Your task to perform on an android device: toggle improve location accuracy Image 0: 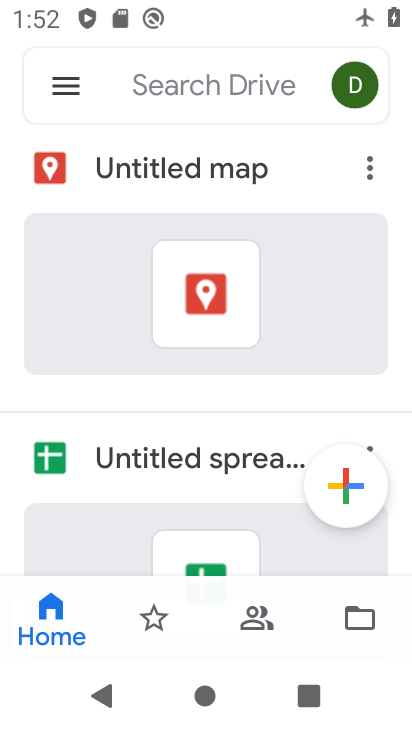
Step 0: press home button
Your task to perform on an android device: toggle improve location accuracy Image 1: 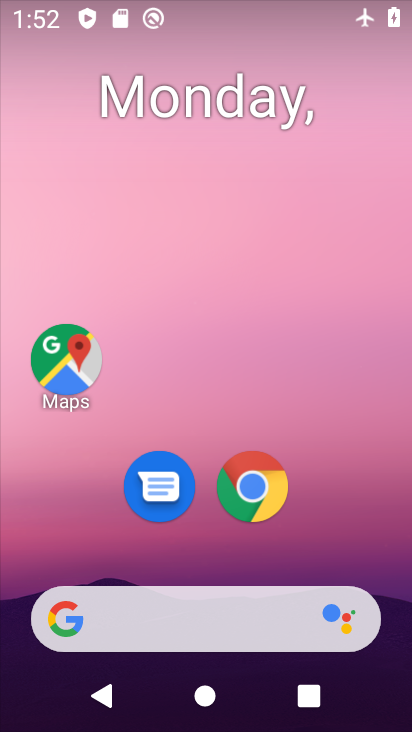
Step 1: drag from (263, 592) to (279, 245)
Your task to perform on an android device: toggle improve location accuracy Image 2: 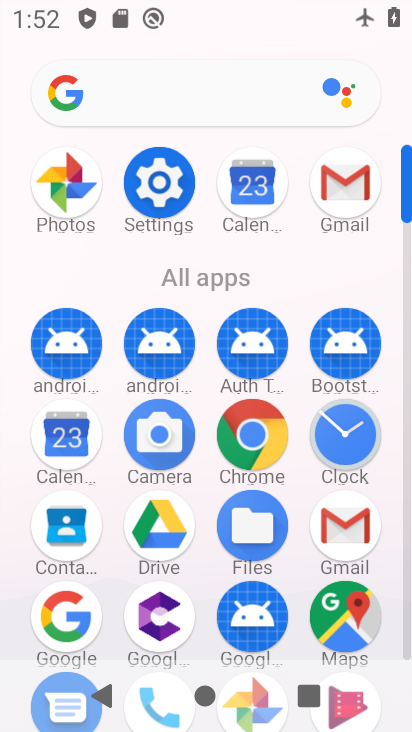
Step 2: click (181, 197)
Your task to perform on an android device: toggle improve location accuracy Image 3: 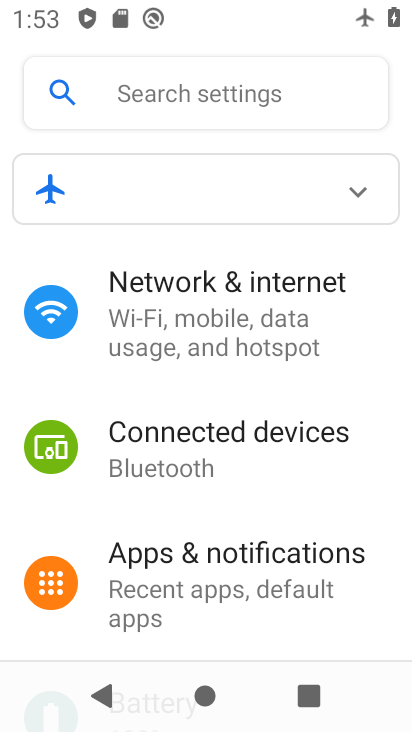
Step 3: click (229, 319)
Your task to perform on an android device: toggle improve location accuracy Image 4: 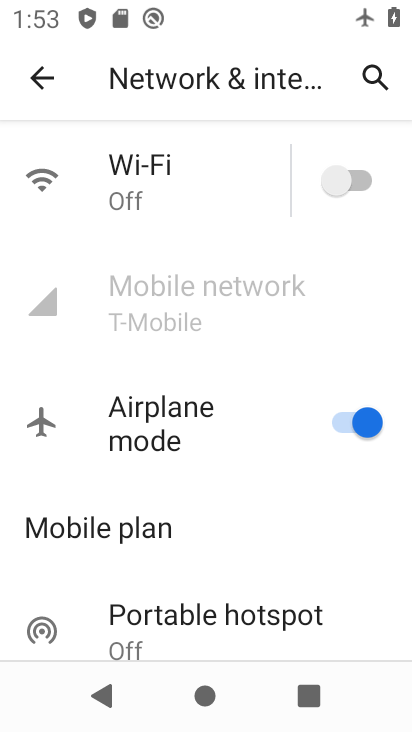
Step 4: drag from (209, 602) to (252, 318)
Your task to perform on an android device: toggle improve location accuracy Image 5: 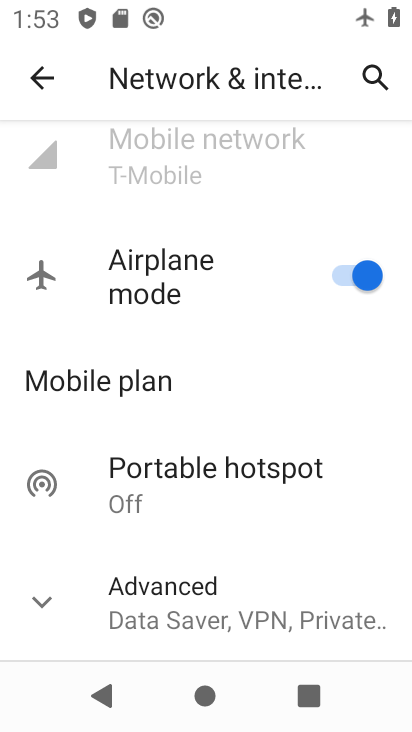
Step 5: drag from (224, 579) to (264, 282)
Your task to perform on an android device: toggle improve location accuracy Image 6: 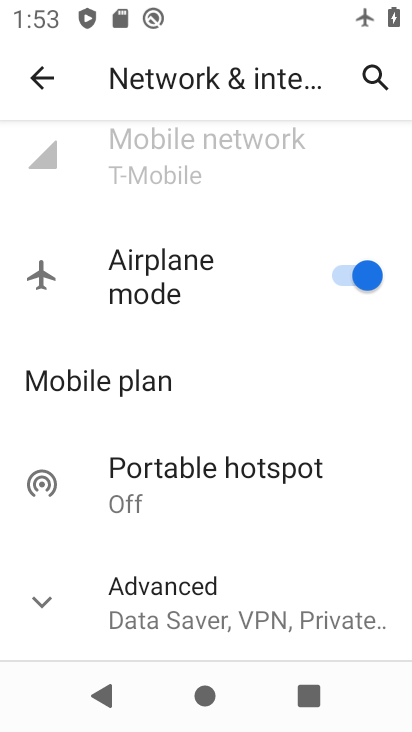
Step 6: drag from (292, 195) to (264, 497)
Your task to perform on an android device: toggle improve location accuracy Image 7: 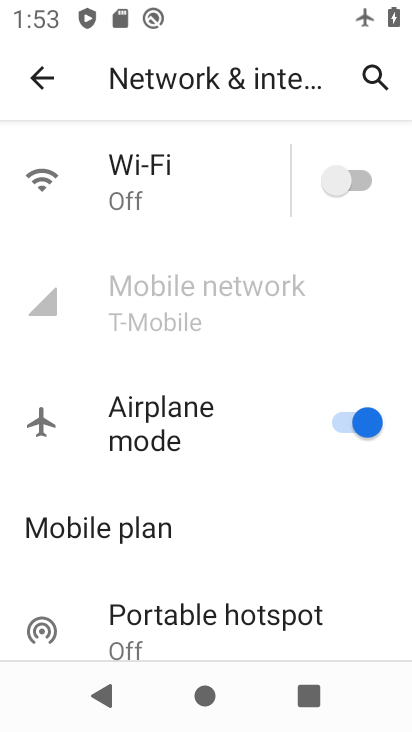
Step 7: click (342, 417)
Your task to perform on an android device: toggle improve location accuracy Image 8: 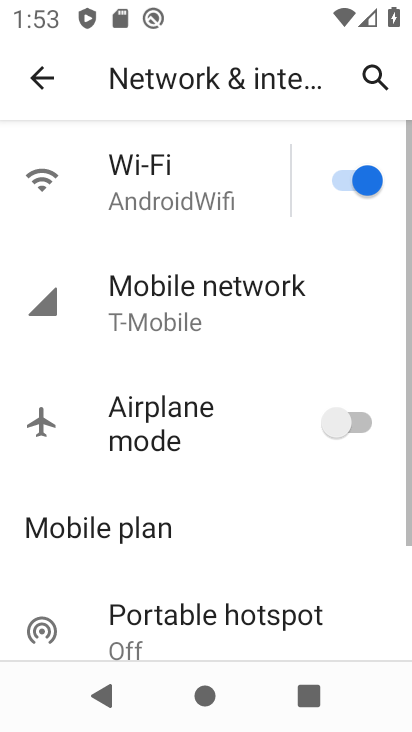
Step 8: press back button
Your task to perform on an android device: toggle improve location accuracy Image 9: 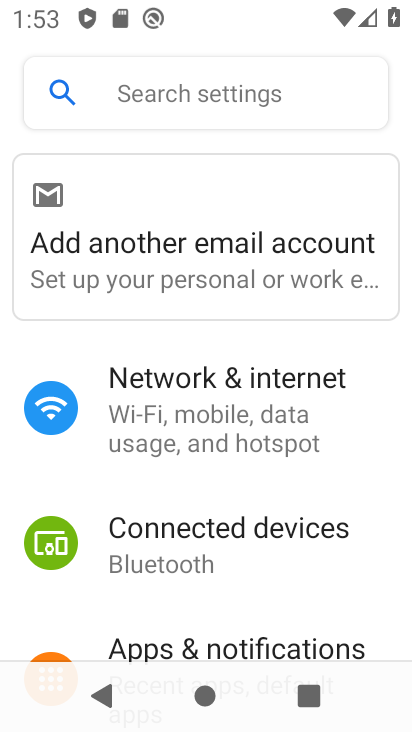
Step 9: drag from (288, 476) to (314, 199)
Your task to perform on an android device: toggle improve location accuracy Image 10: 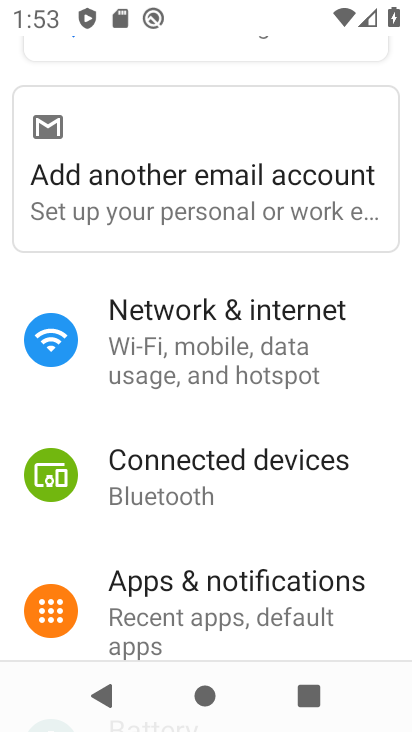
Step 10: drag from (346, 503) to (406, 332)
Your task to perform on an android device: toggle improve location accuracy Image 11: 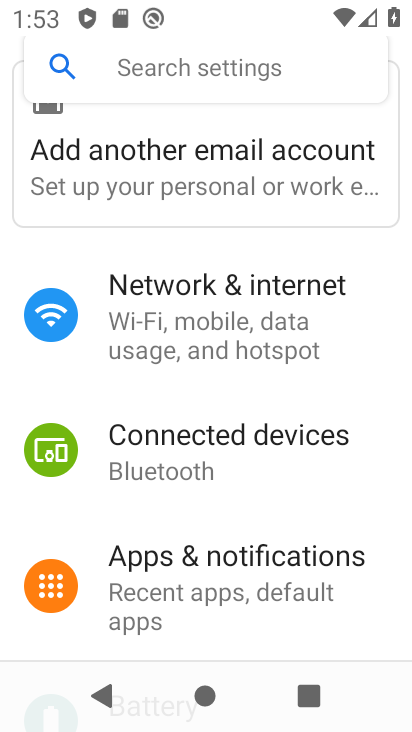
Step 11: drag from (241, 597) to (364, 293)
Your task to perform on an android device: toggle improve location accuracy Image 12: 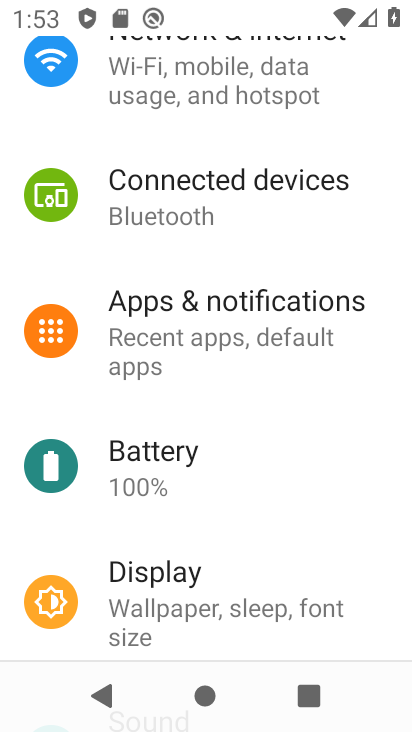
Step 12: drag from (322, 595) to (411, 220)
Your task to perform on an android device: toggle improve location accuracy Image 13: 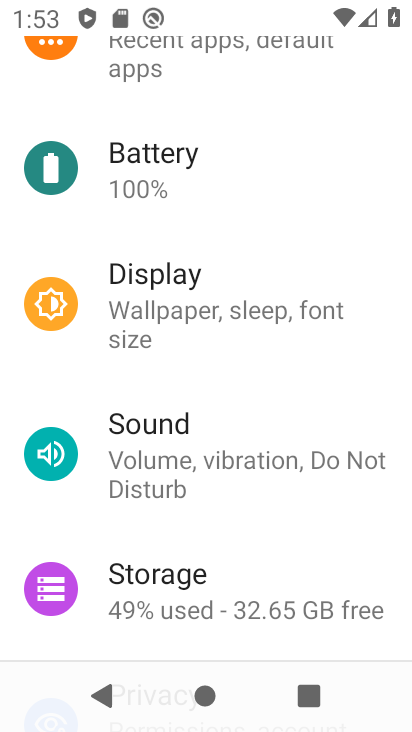
Step 13: drag from (207, 548) to (340, 80)
Your task to perform on an android device: toggle improve location accuracy Image 14: 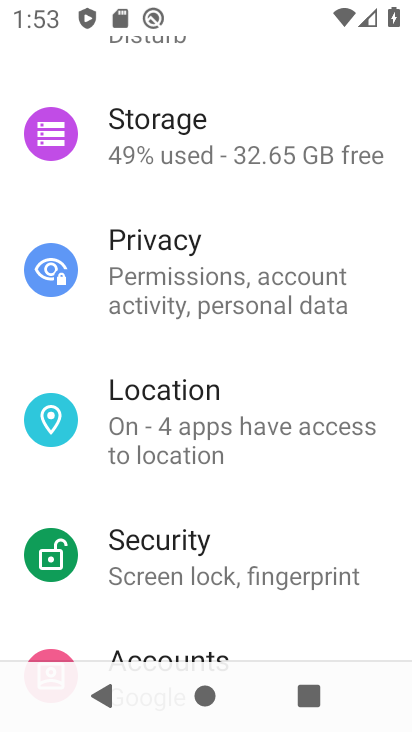
Step 14: drag from (211, 360) to (298, 149)
Your task to perform on an android device: toggle improve location accuracy Image 15: 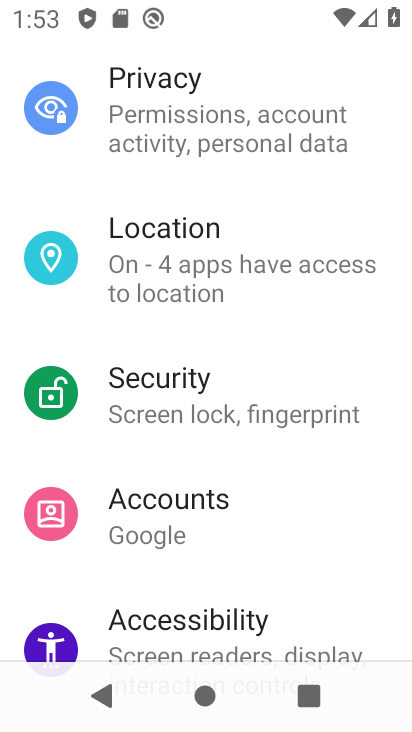
Step 15: drag from (223, 513) to (367, 126)
Your task to perform on an android device: toggle improve location accuracy Image 16: 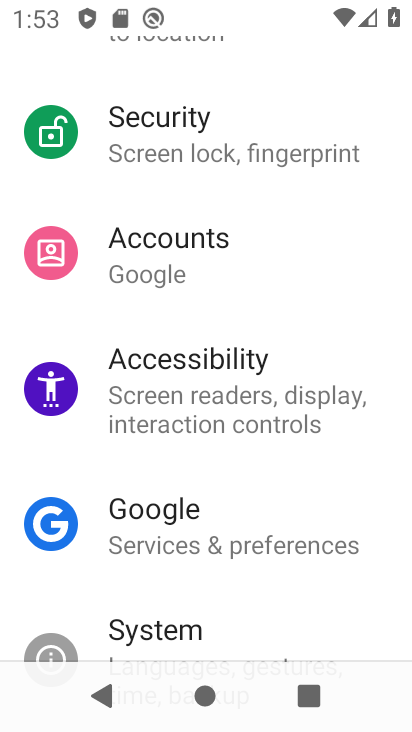
Step 16: drag from (285, 549) to (409, 265)
Your task to perform on an android device: toggle improve location accuracy Image 17: 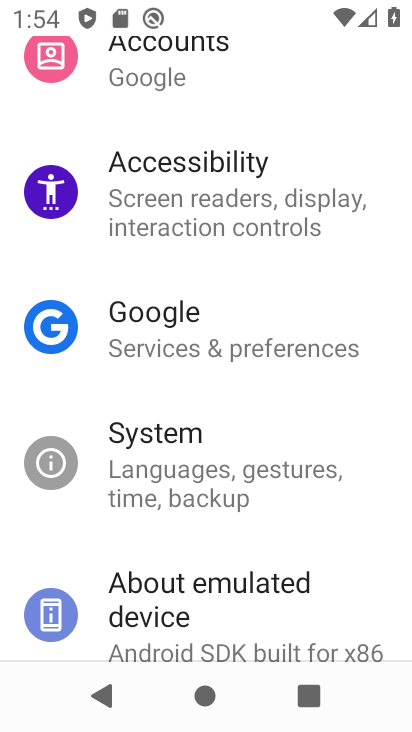
Step 17: drag from (186, 433) to (221, 224)
Your task to perform on an android device: toggle improve location accuracy Image 18: 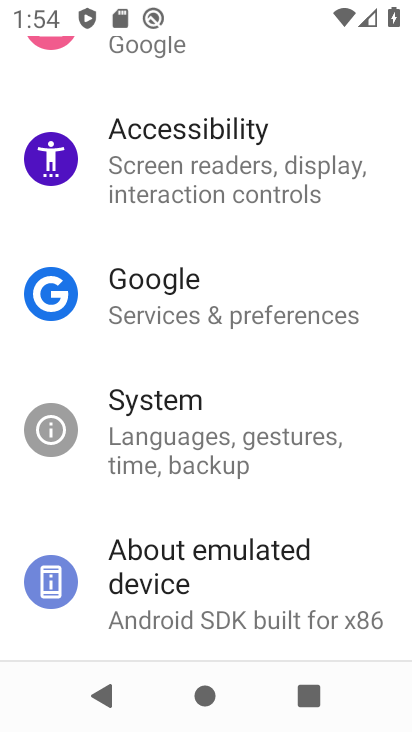
Step 18: drag from (276, 150) to (233, 517)
Your task to perform on an android device: toggle improve location accuracy Image 19: 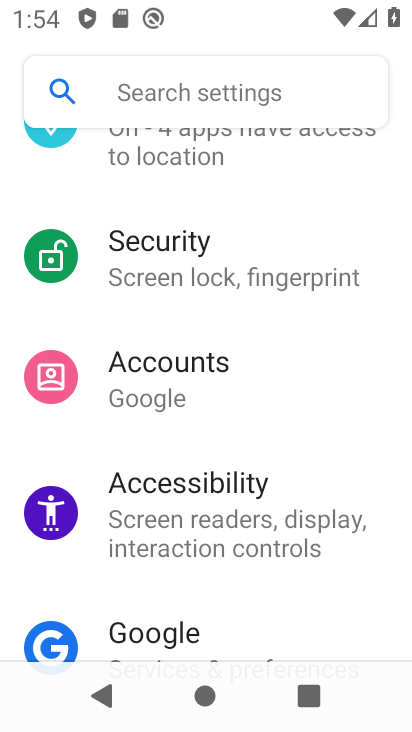
Step 19: drag from (303, 262) to (273, 560)
Your task to perform on an android device: toggle improve location accuracy Image 20: 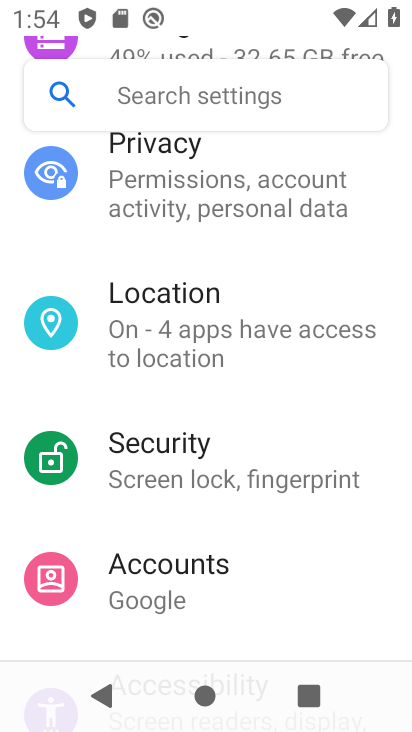
Step 20: click (175, 316)
Your task to perform on an android device: toggle improve location accuracy Image 21: 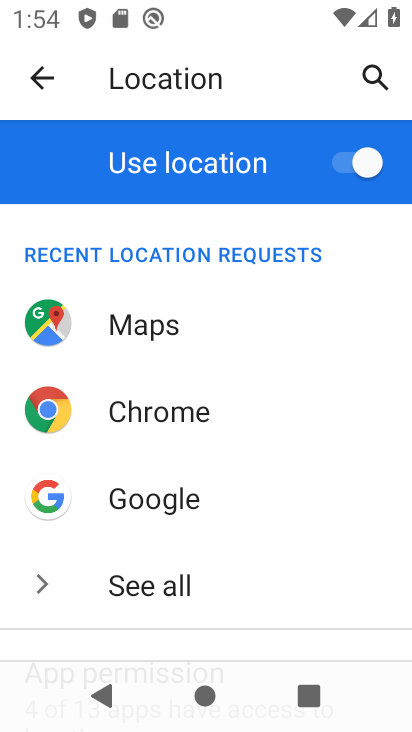
Step 21: click (330, 164)
Your task to perform on an android device: toggle improve location accuracy Image 22: 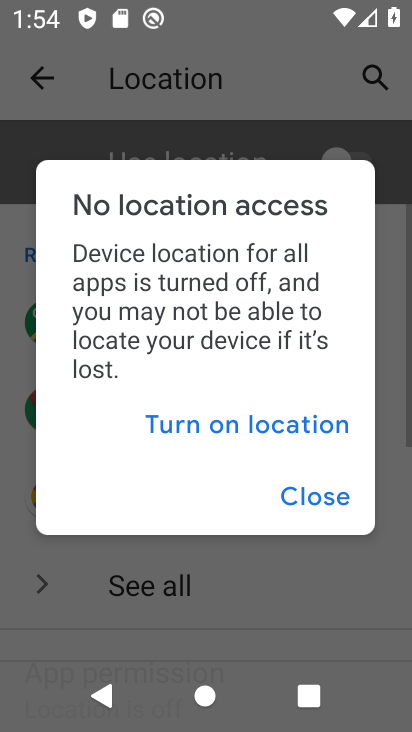
Step 22: click (367, 162)
Your task to perform on an android device: toggle improve location accuracy Image 23: 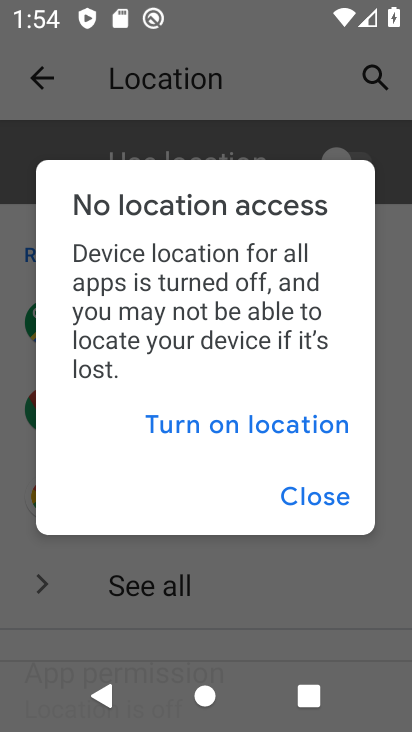
Step 23: click (293, 423)
Your task to perform on an android device: toggle improve location accuracy Image 24: 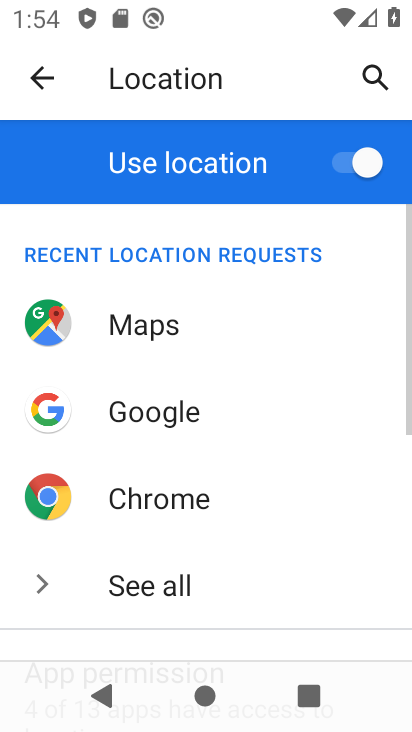
Step 24: drag from (309, 508) to (402, 224)
Your task to perform on an android device: toggle improve location accuracy Image 25: 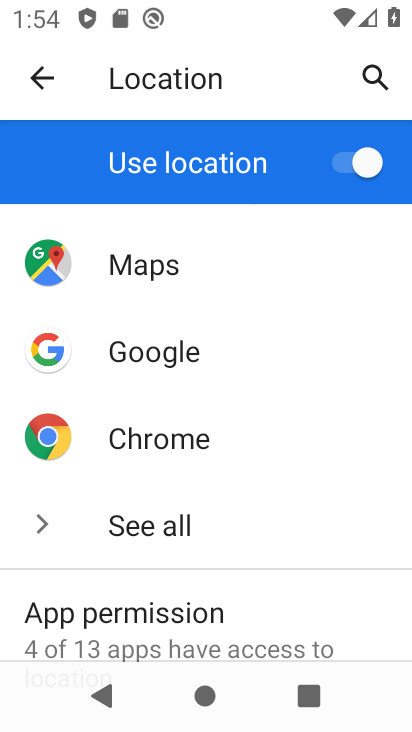
Step 25: click (410, 275)
Your task to perform on an android device: toggle improve location accuracy Image 26: 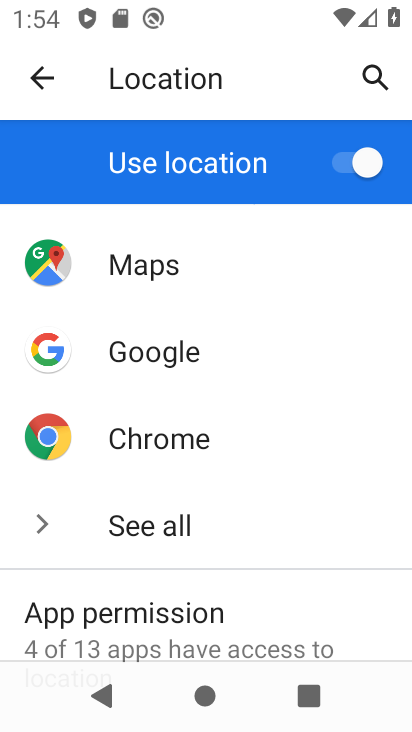
Step 26: drag from (288, 533) to (405, 103)
Your task to perform on an android device: toggle improve location accuracy Image 27: 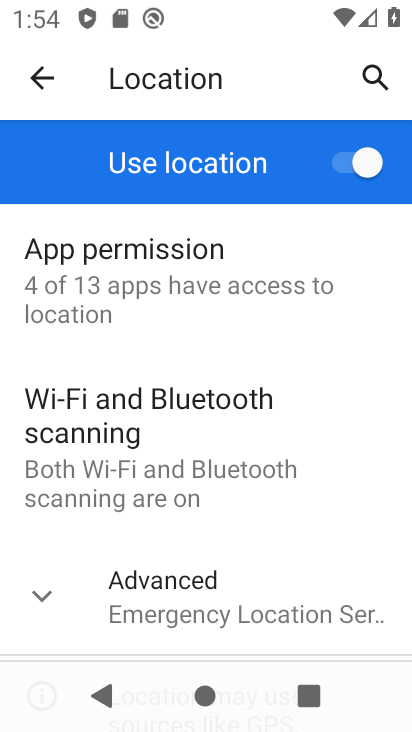
Step 27: drag from (144, 582) to (314, 183)
Your task to perform on an android device: toggle improve location accuracy Image 28: 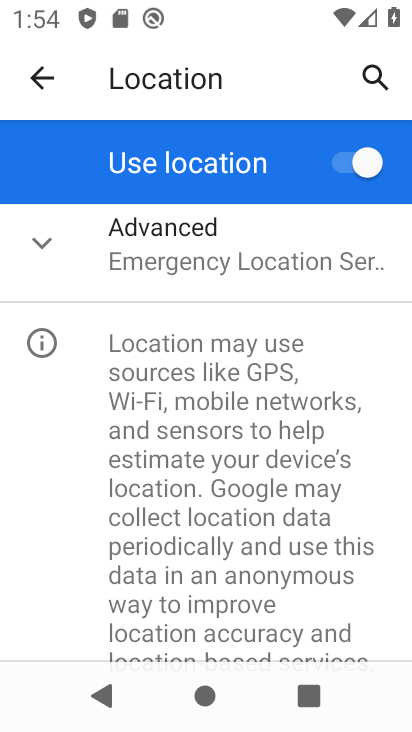
Step 28: click (182, 224)
Your task to perform on an android device: toggle improve location accuracy Image 29: 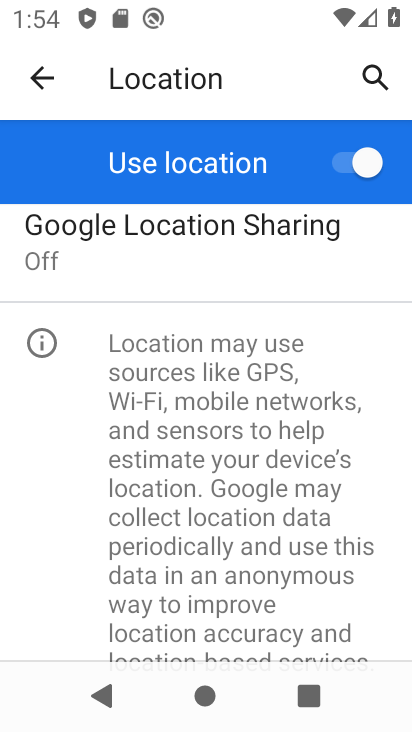
Step 29: drag from (184, 273) to (112, 512)
Your task to perform on an android device: toggle improve location accuracy Image 30: 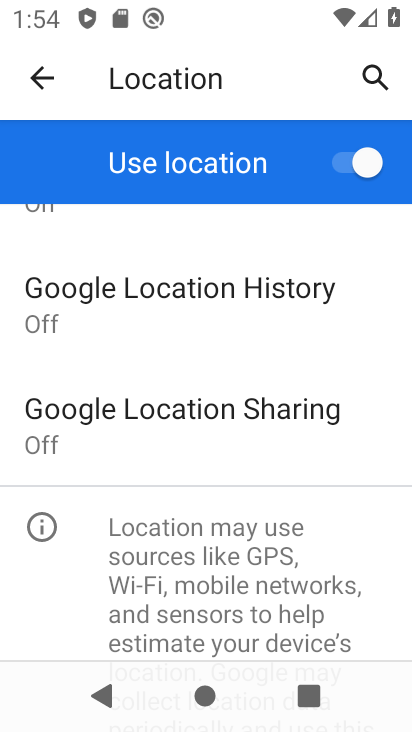
Step 30: drag from (250, 266) to (176, 589)
Your task to perform on an android device: toggle improve location accuracy Image 31: 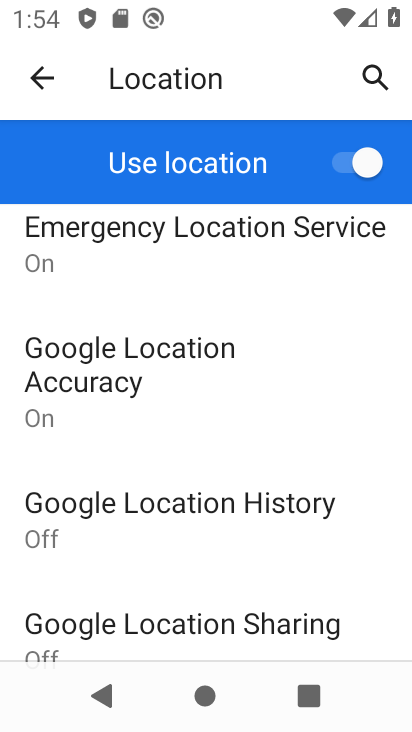
Step 31: click (109, 348)
Your task to perform on an android device: toggle improve location accuracy Image 32: 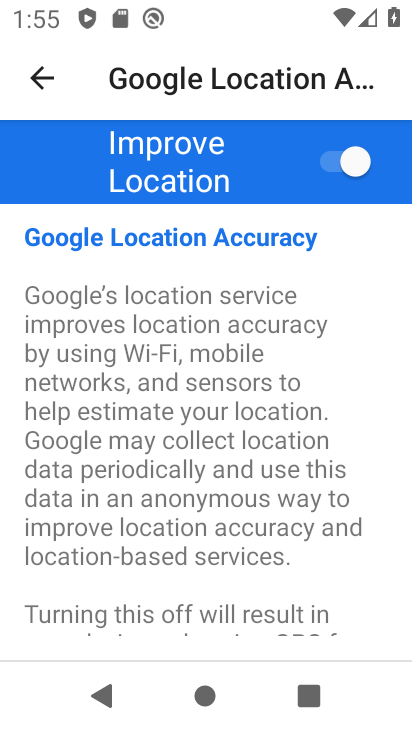
Step 32: click (317, 170)
Your task to perform on an android device: toggle improve location accuracy Image 33: 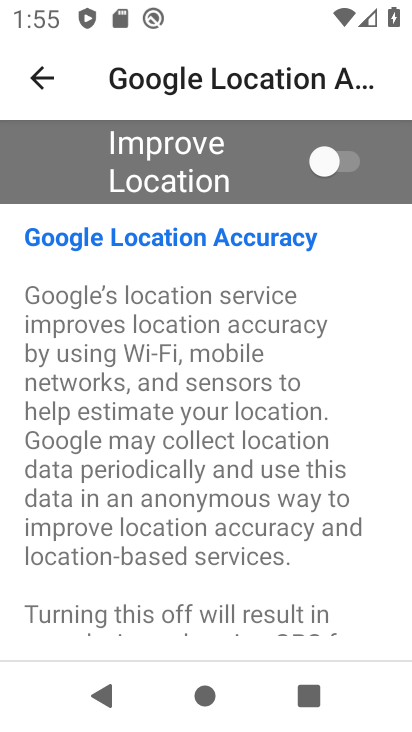
Step 33: task complete